Your task to perform on an android device: Open Google Chrome and click the shortcut for Amazon.com Image 0: 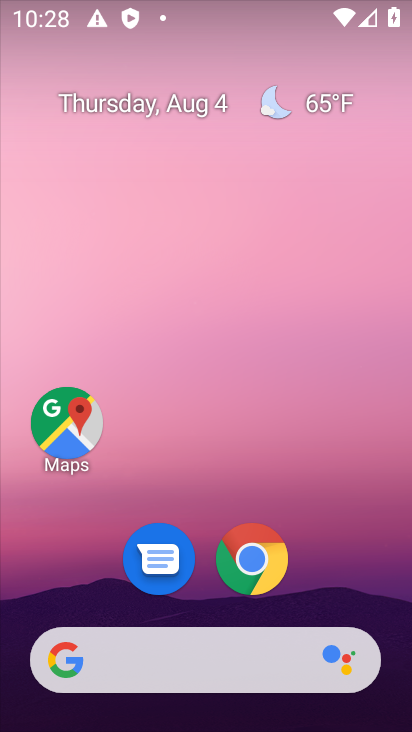
Step 0: click (255, 592)
Your task to perform on an android device: Open Google Chrome and click the shortcut for Amazon.com Image 1: 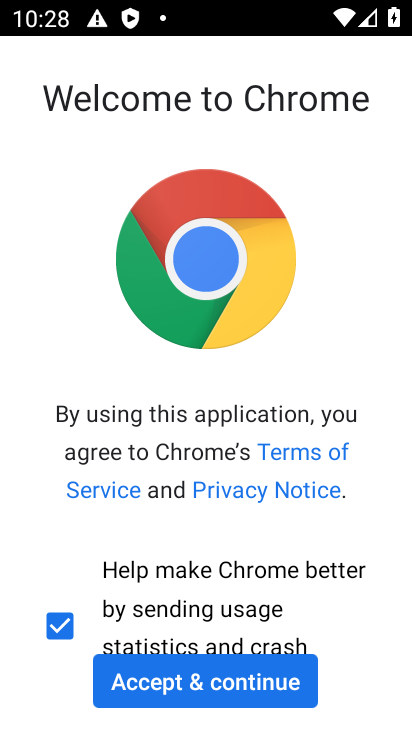
Step 1: click (157, 666)
Your task to perform on an android device: Open Google Chrome and click the shortcut for Amazon.com Image 2: 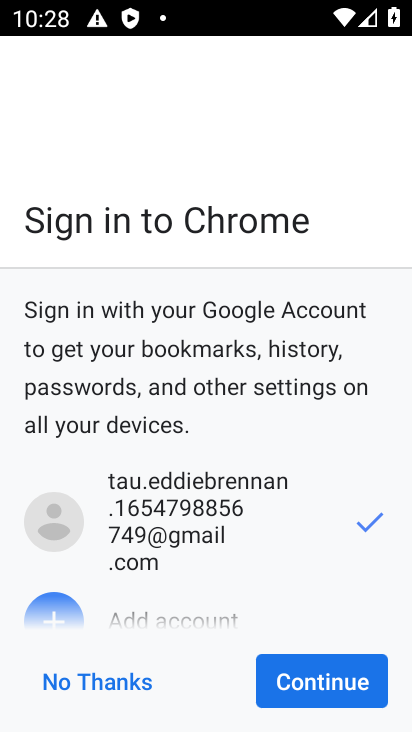
Step 2: click (276, 677)
Your task to perform on an android device: Open Google Chrome and click the shortcut for Amazon.com Image 3: 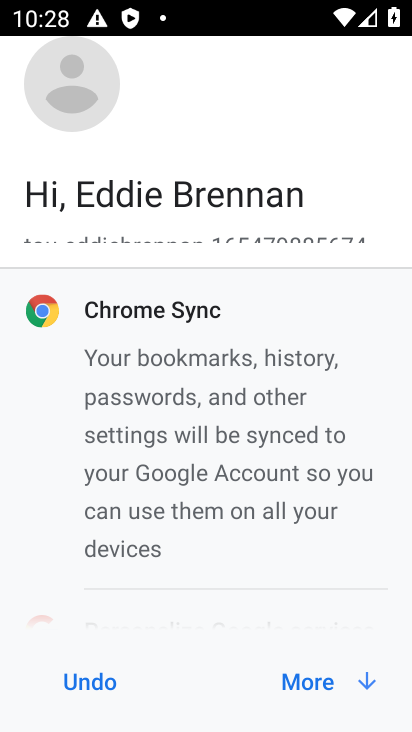
Step 3: click (310, 690)
Your task to perform on an android device: Open Google Chrome and click the shortcut for Amazon.com Image 4: 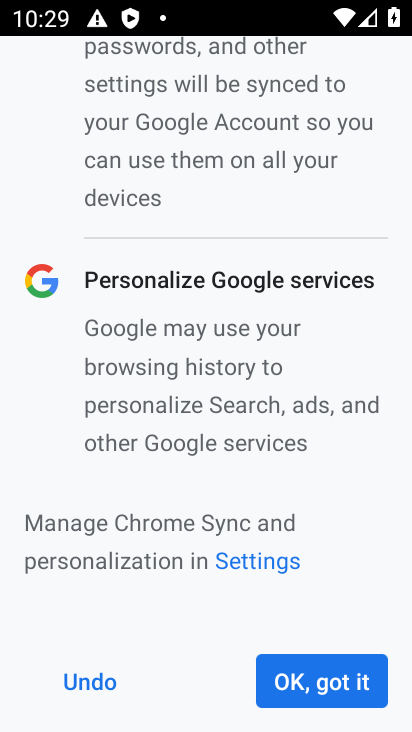
Step 4: click (310, 690)
Your task to perform on an android device: Open Google Chrome and click the shortcut for Amazon.com Image 5: 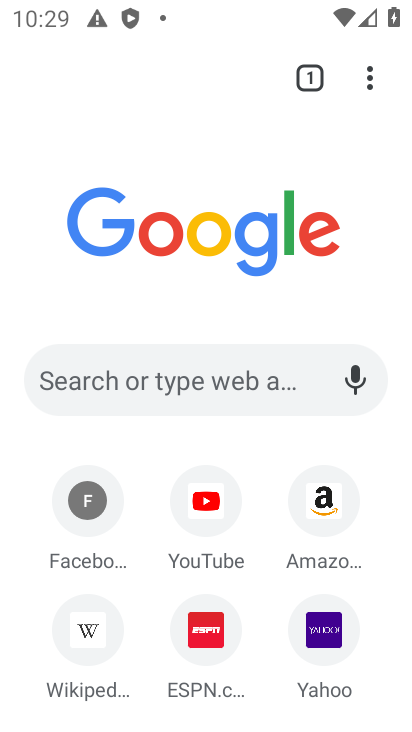
Step 5: click (317, 544)
Your task to perform on an android device: Open Google Chrome and click the shortcut for Amazon.com Image 6: 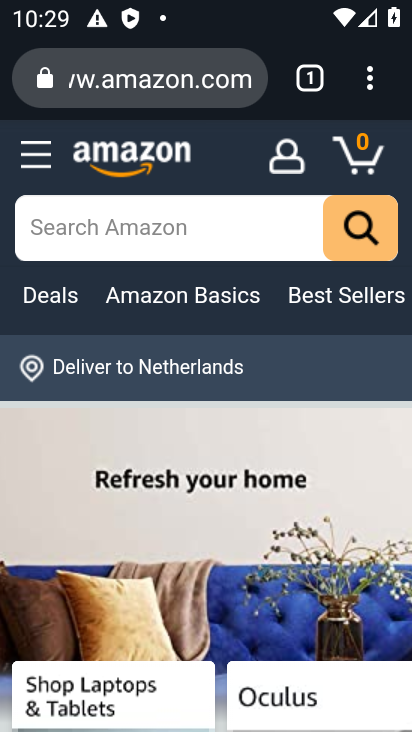
Step 6: task complete